Your task to perform on an android device: Open calendar and show me the third week of next month Image 0: 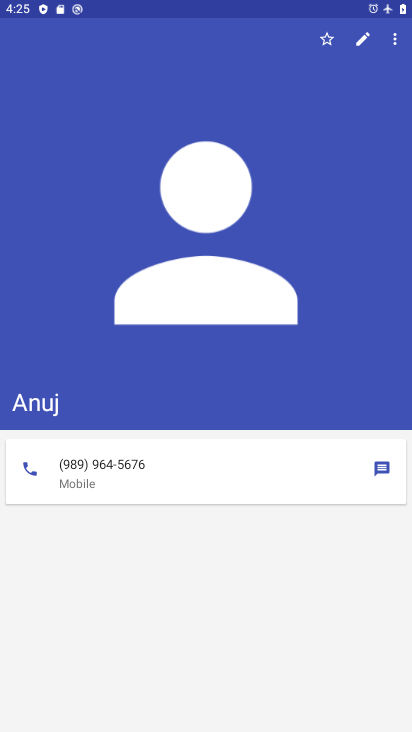
Step 0: press home button
Your task to perform on an android device: Open calendar and show me the third week of next month Image 1: 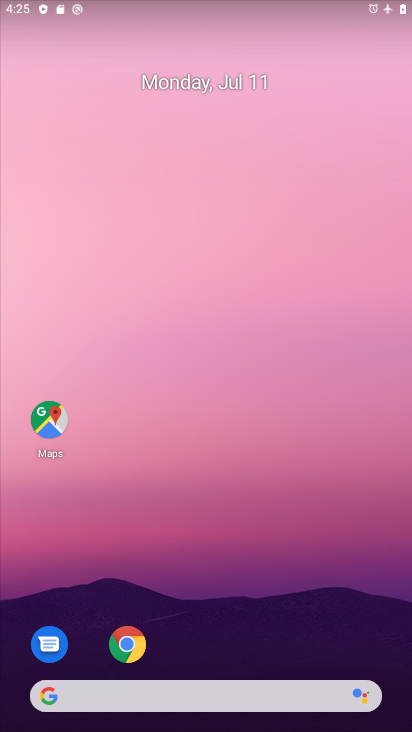
Step 1: drag from (327, 533) to (363, 0)
Your task to perform on an android device: Open calendar and show me the third week of next month Image 2: 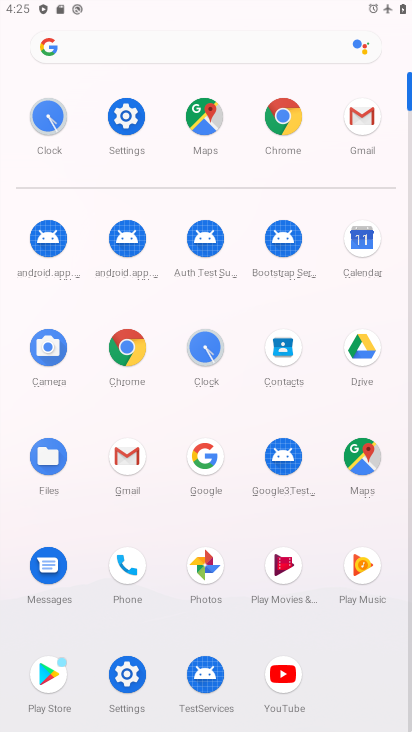
Step 2: click (364, 241)
Your task to perform on an android device: Open calendar and show me the third week of next month Image 3: 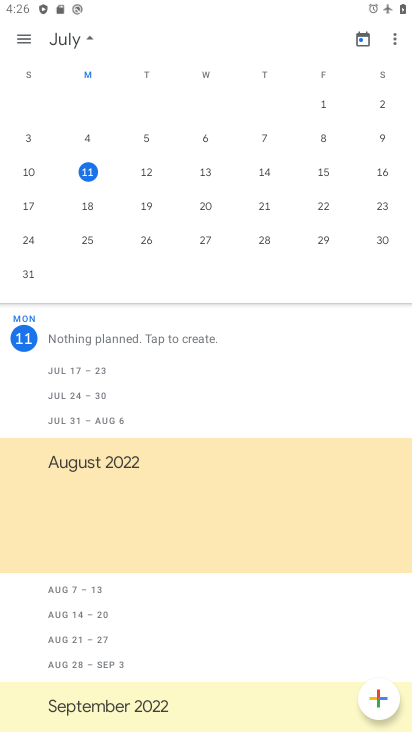
Step 3: drag from (351, 211) to (32, 226)
Your task to perform on an android device: Open calendar and show me the third week of next month Image 4: 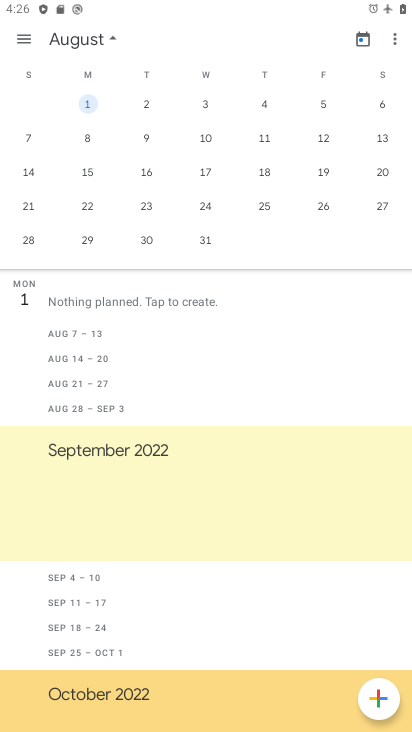
Step 4: click (198, 175)
Your task to perform on an android device: Open calendar and show me the third week of next month Image 5: 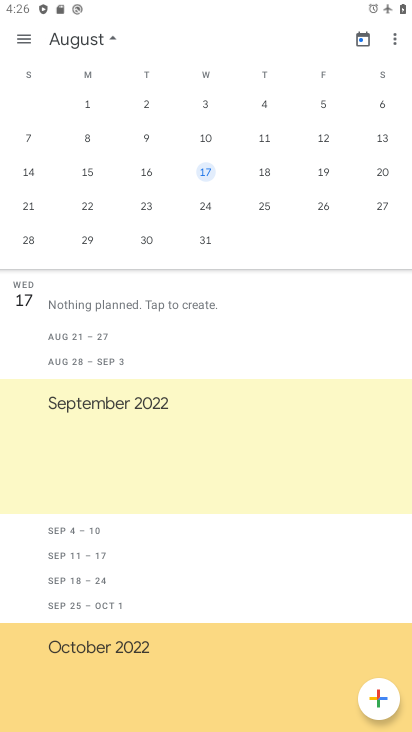
Step 5: task complete